Your task to perform on an android device: Open notification settings Image 0: 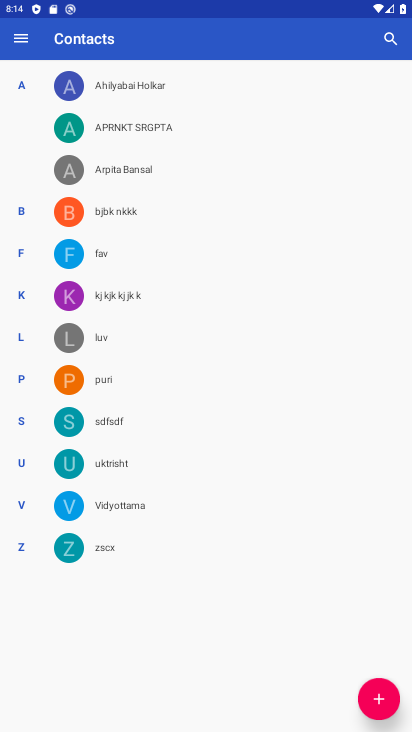
Step 0: press back button
Your task to perform on an android device: Open notification settings Image 1: 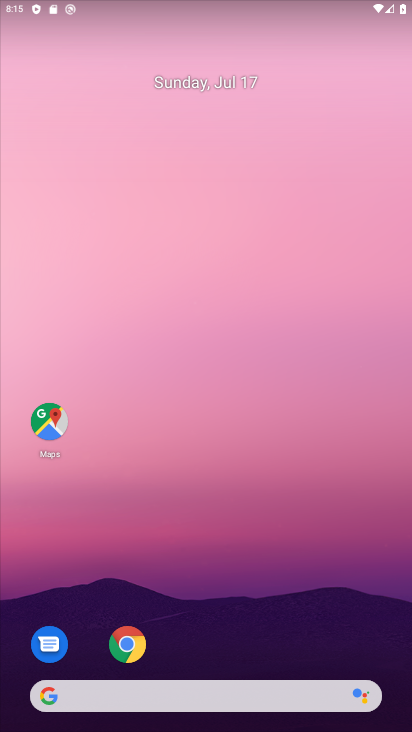
Step 1: drag from (288, 388) to (231, 23)
Your task to perform on an android device: Open notification settings Image 2: 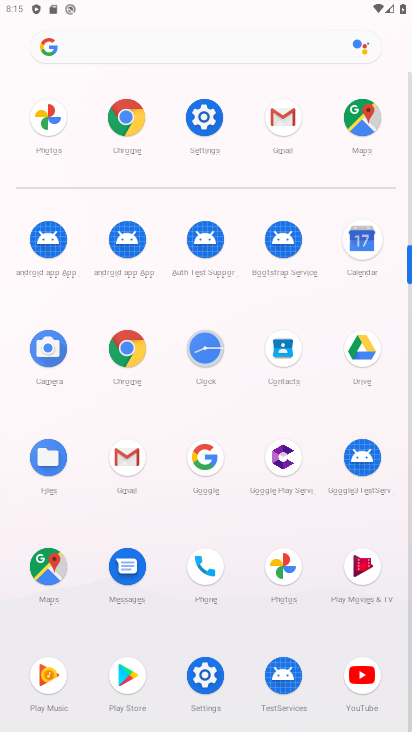
Step 2: drag from (239, 437) to (189, 17)
Your task to perform on an android device: Open notification settings Image 3: 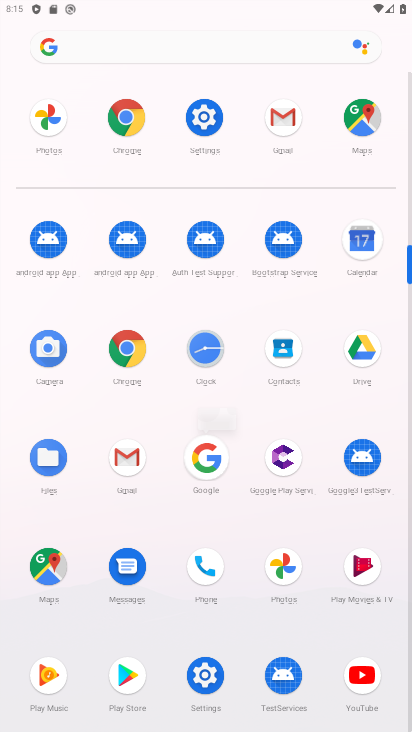
Step 3: drag from (216, 525) to (177, 74)
Your task to perform on an android device: Open notification settings Image 4: 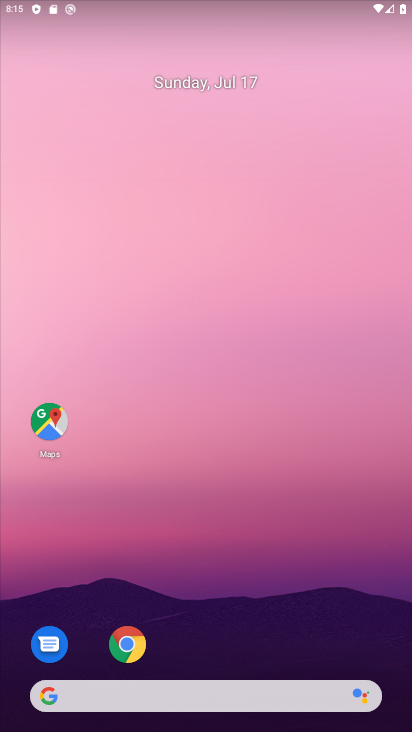
Step 4: drag from (211, 47) to (265, 17)
Your task to perform on an android device: Open notification settings Image 5: 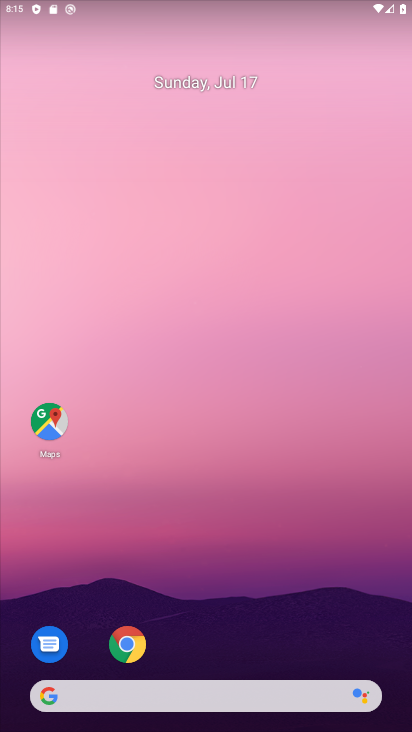
Step 5: drag from (194, 26) to (158, 0)
Your task to perform on an android device: Open notification settings Image 6: 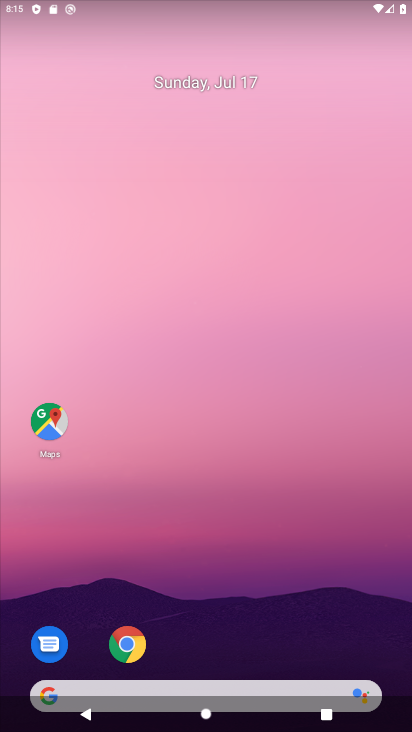
Step 6: drag from (224, 448) to (73, 37)
Your task to perform on an android device: Open notification settings Image 7: 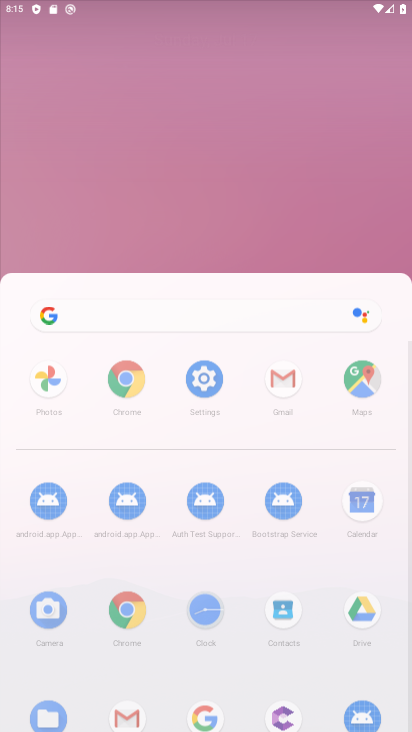
Step 7: drag from (68, 400) to (71, 54)
Your task to perform on an android device: Open notification settings Image 8: 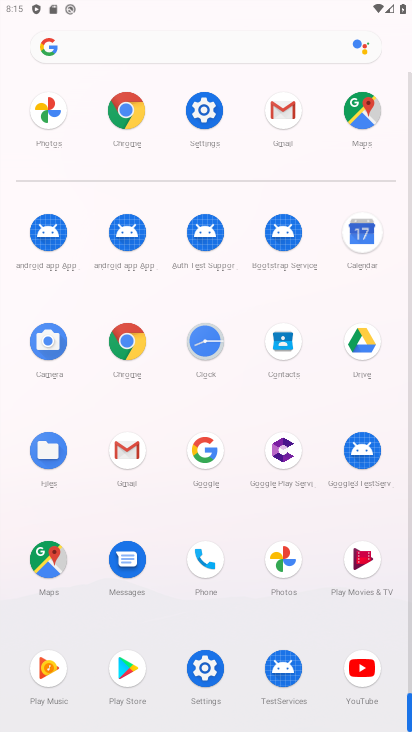
Step 8: drag from (185, 547) to (206, 107)
Your task to perform on an android device: Open notification settings Image 9: 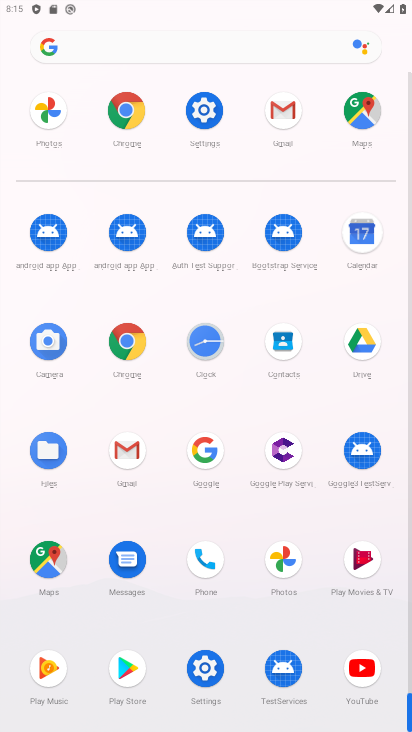
Step 9: click (209, 673)
Your task to perform on an android device: Open notification settings Image 10: 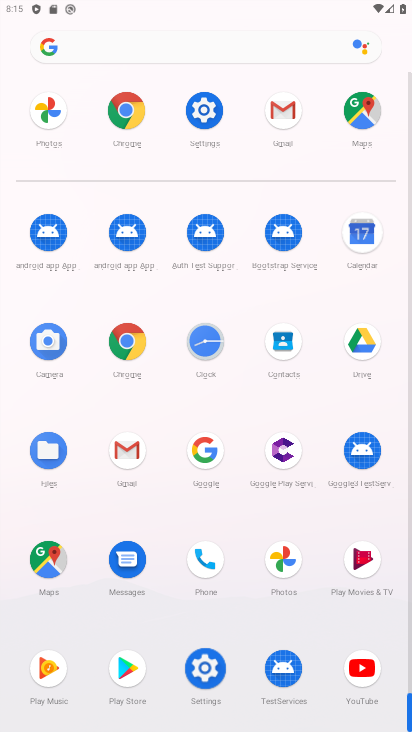
Step 10: click (210, 673)
Your task to perform on an android device: Open notification settings Image 11: 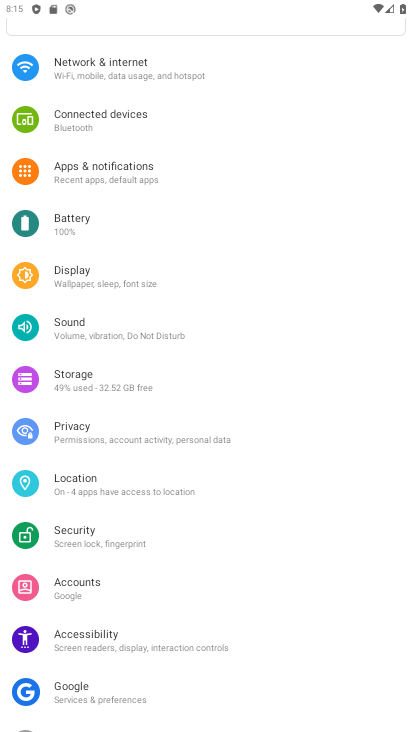
Step 11: drag from (167, 401) to (140, 33)
Your task to perform on an android device: Open notification settings Image 12: 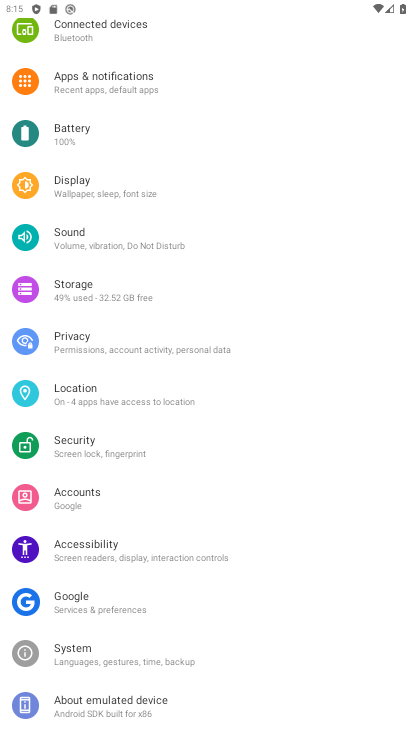
Step 12: click (103, 85)
Your task to perform on an android device: Open notification settings Image 13: 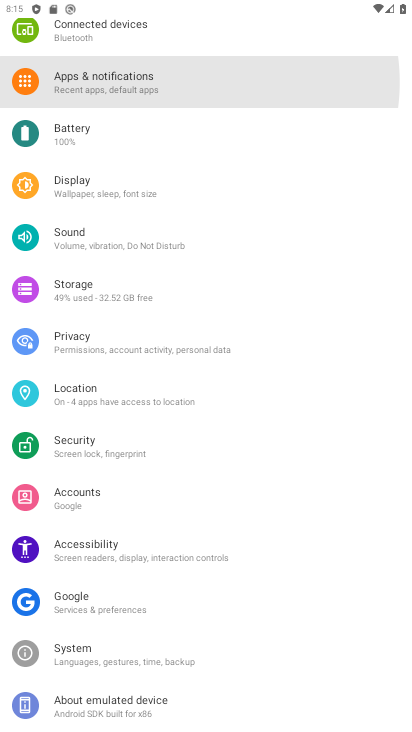
Step 13: click (105, 85)
Your task to perform on an android device: Open notification settings Image 14: 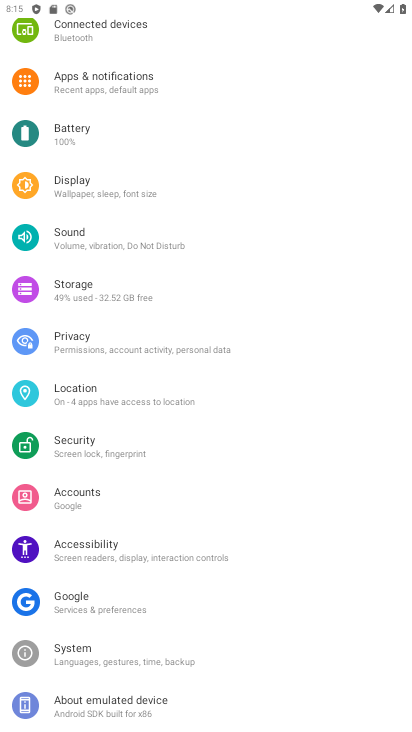
Step 14: click (107, 86)
Your task to perform on an android device: Open notification settings Image 15: 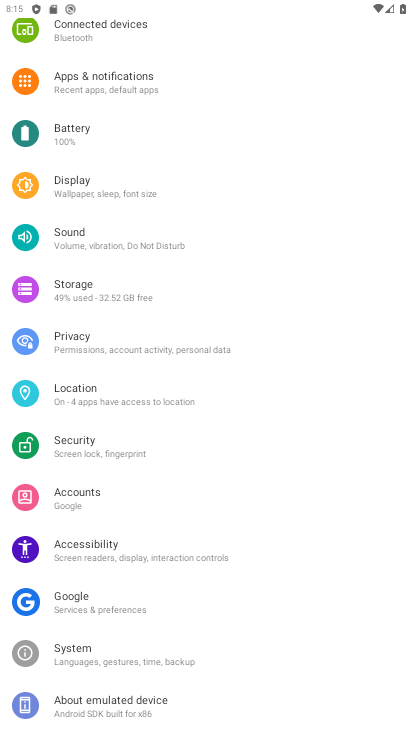
Step 15: click (108, 87)
Your task to perform on an android device: Open notification settings Image 16: 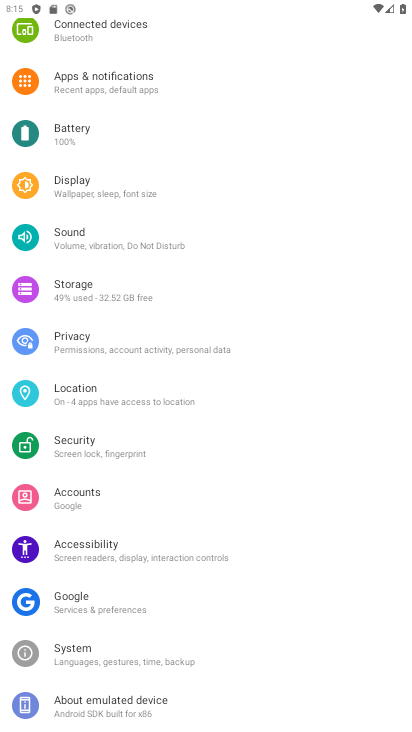
Step 16: click (114, 87)
Your task to perform on an android device: Open notification settings Image 17: 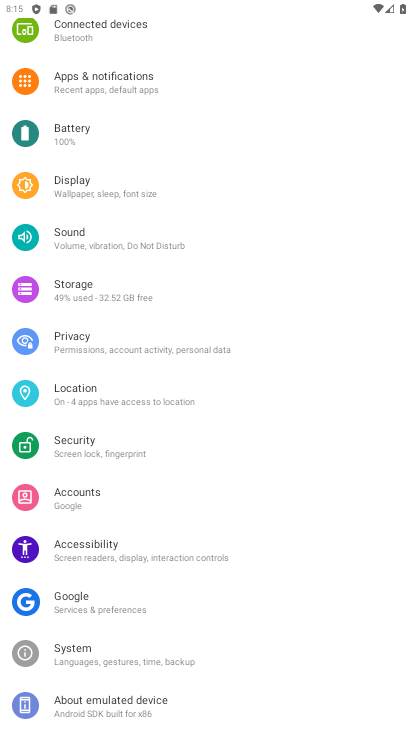
Step 17: click (115, 87)
Your task to perform on an android device: Open notification settings Image 18: 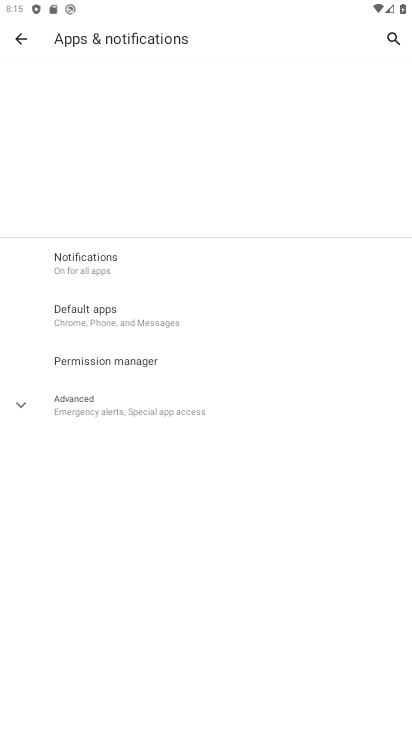
Step 18: click (119, 87)
Your task to perform on an android device: Open notification settings Image 19: 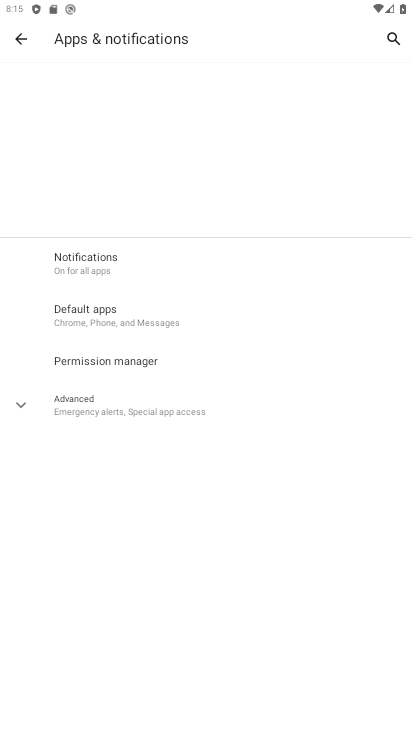
Step 19: click (121, 90)
Your task to perform on an android device: Open notification settings Image 20: 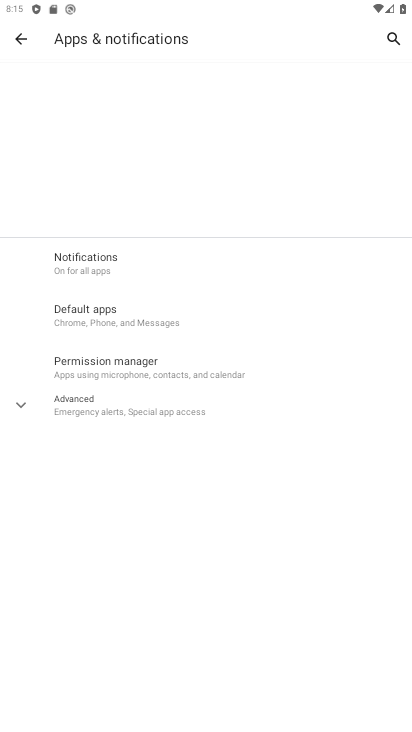
Step 20: click (121, 90)
Your task to perform on an android device: Open notification settings Image 21: 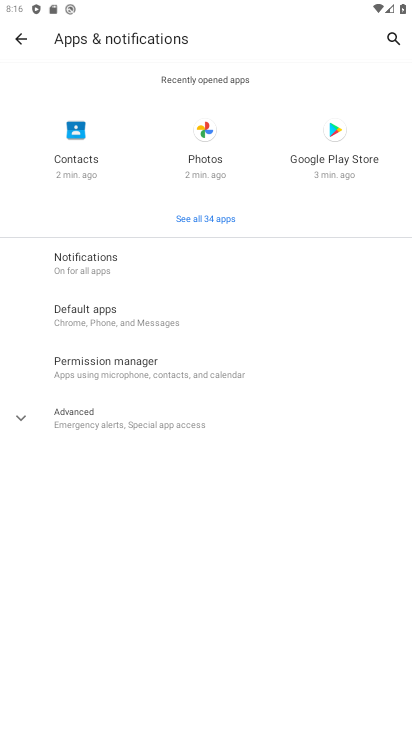
Step 21: click (80, 268)
Your task to perform on an android device: Open notification settings Image 22: 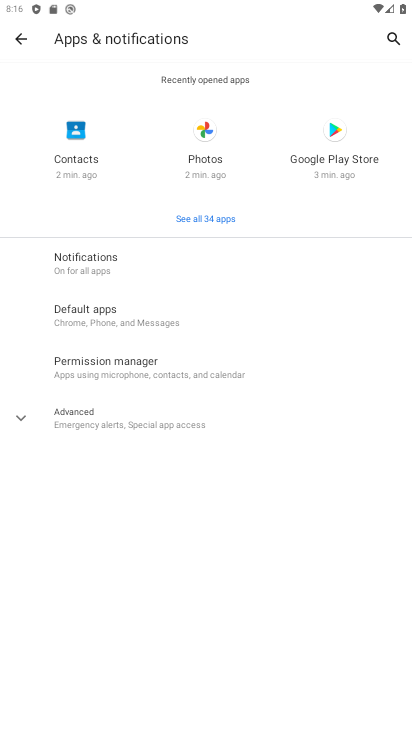
Step 22: click (79, 268)
Your task to perform on an android device: Open notification settings Image 23: 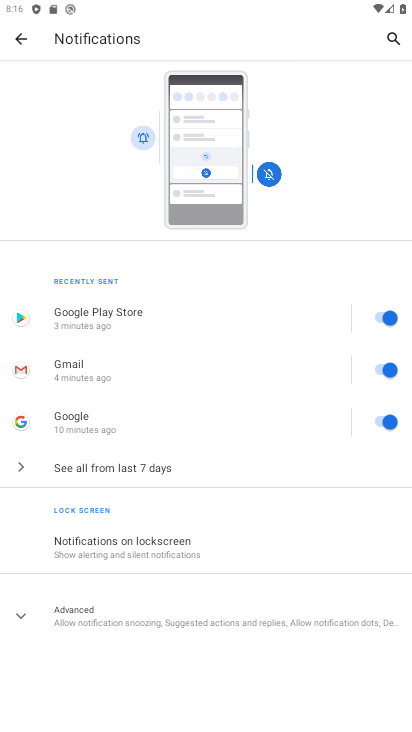
Step 23: task complete